Your task to perform on an android device: Open eBay Image 0: 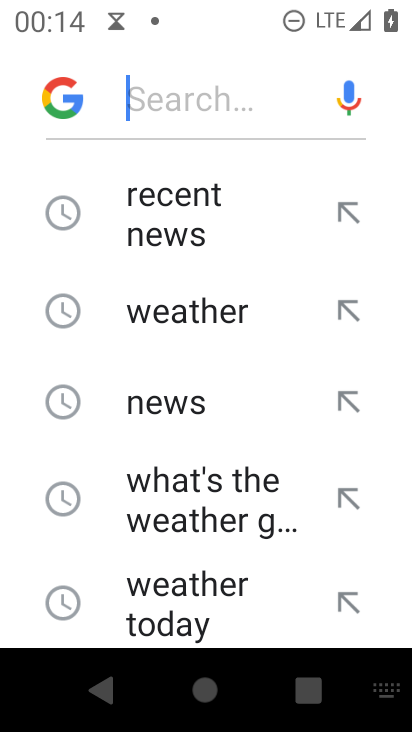
Step 0: press home button
Your task to perform on an android device: Open eBay Image 1: 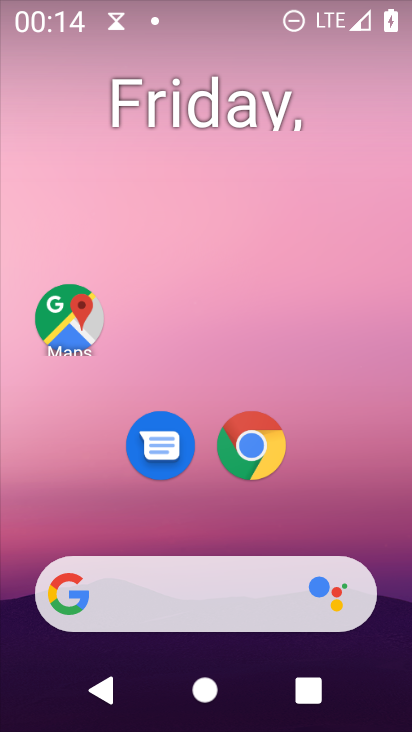
Step 1: click (252, 448)
Your task to perform on an android device: Open eBay Image 2: 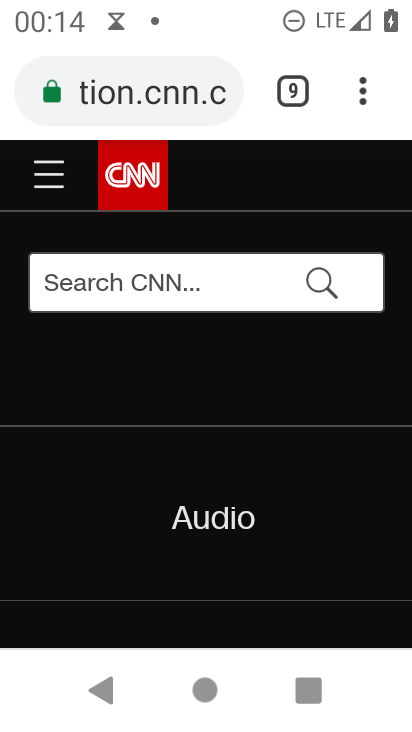
Step 2: click (361, 97)
Your task to perform on an android device: Open eBay Image 3: 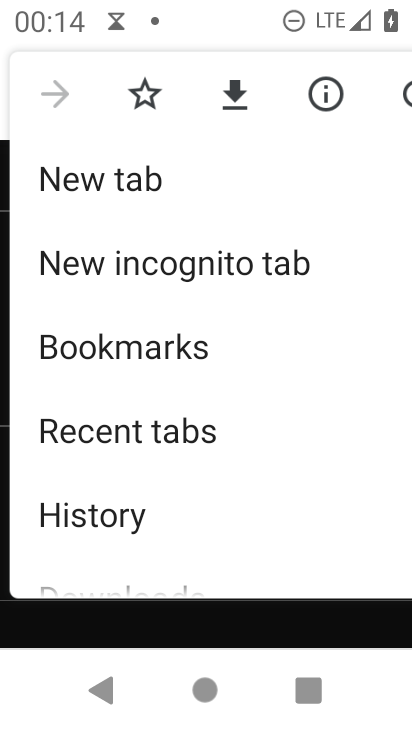
Step 3: click (73, 178)
Your task to perform on an android device: Open eBay Image 4: 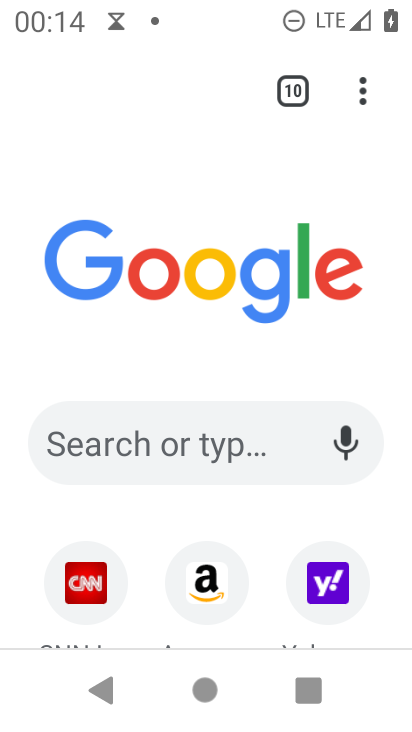
Step 4: drag from (270, 623) to (275, 465)
Your task to perform on an android device: Open eBay Image 5: 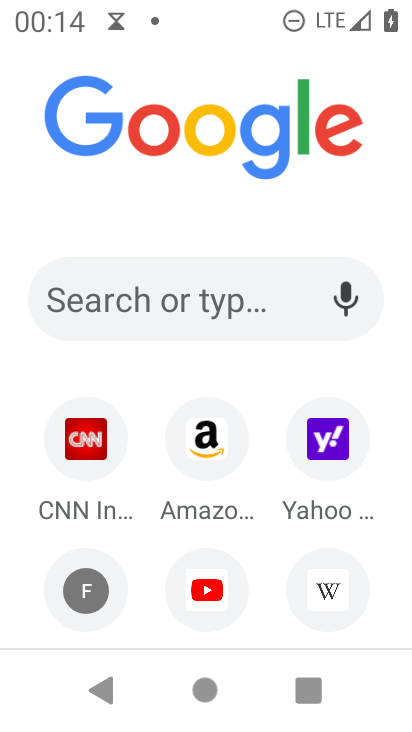
Step 5: drag from (259, 625) to (259, 486)
Your task to perform on an android device: Open eBay Image 6: 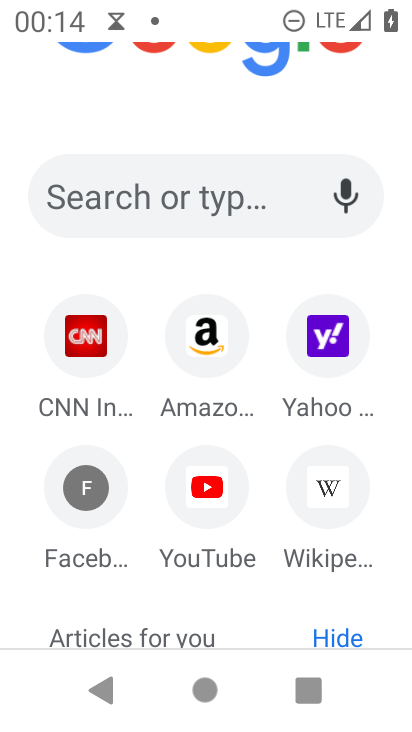
Step 6: click (192, 194)
Your task to perform on an android device: Open eBay Image 7: 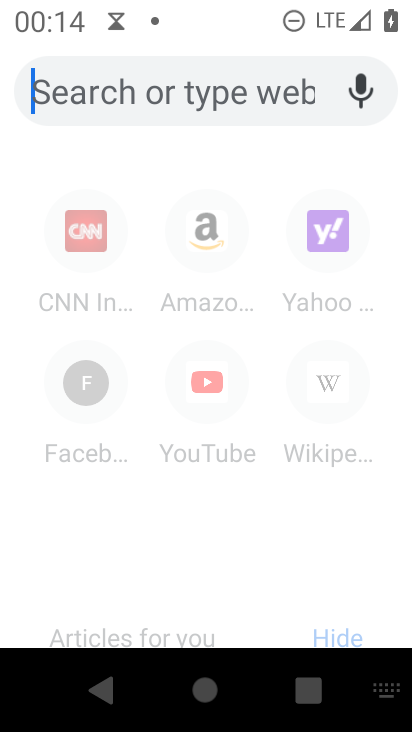
Step 7: type "eBay"
Your task to perform on an android device: Open eBay Image 8: 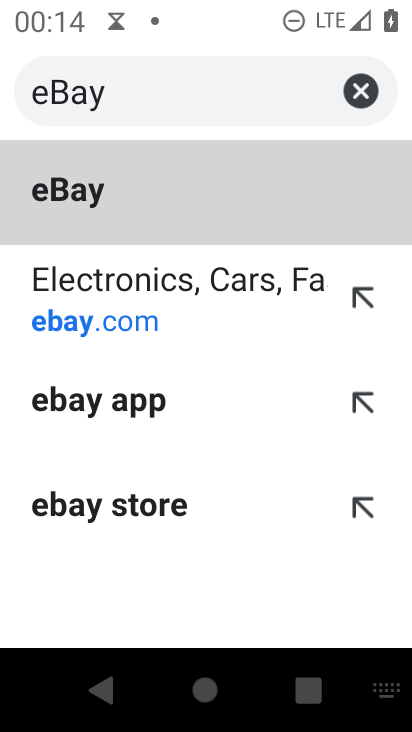
Step 8: click (80, 198)
Your task to perform on an android device: Open eBay Image 9: 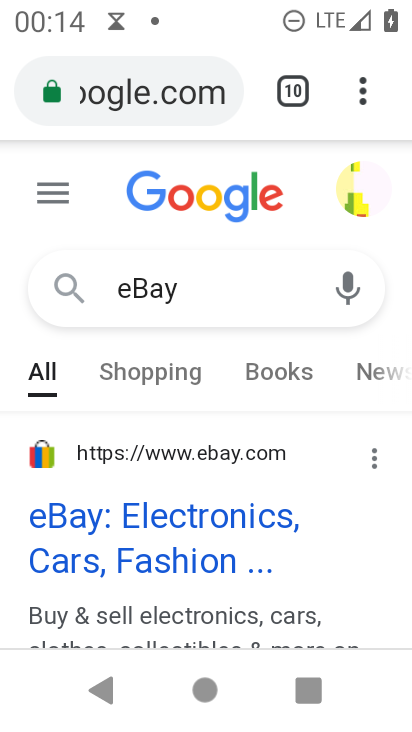
Step 9: click (145, 526)
Your task to perform on an android device: Open eBay Image 10: 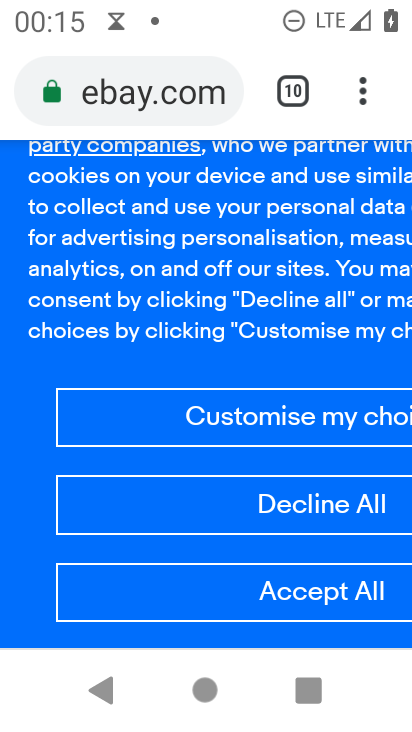
Step 10: task complete